Your task to perform on an android device: check android version Image 0: 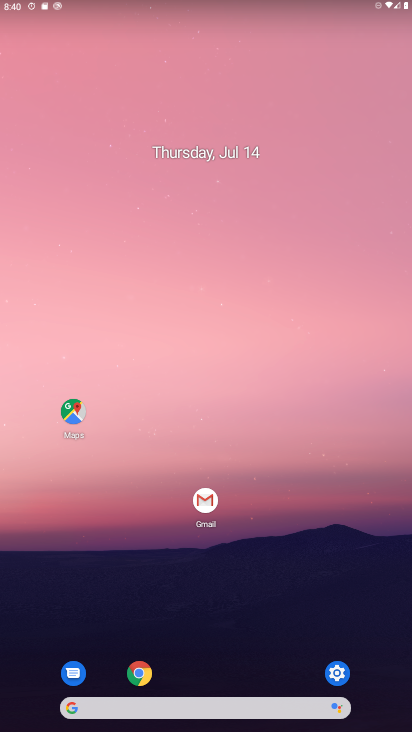
Step 0: drag from (246, 716) to (372, 107)
Your task to perform on an android device: check android version Image 1: 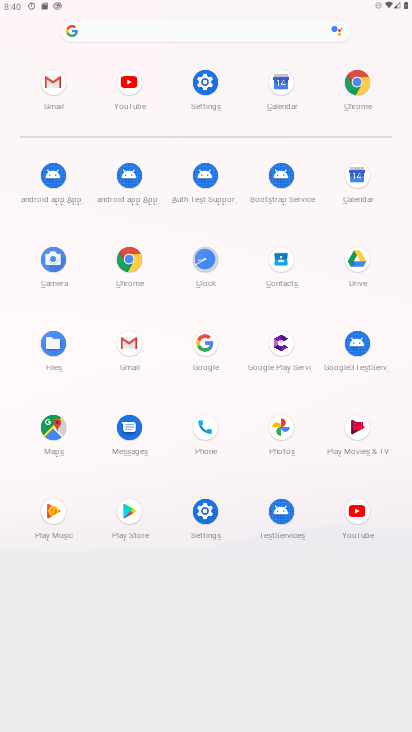
Step 1: click (198, 90)
Your task to perform on an android device: check android version Image 2: 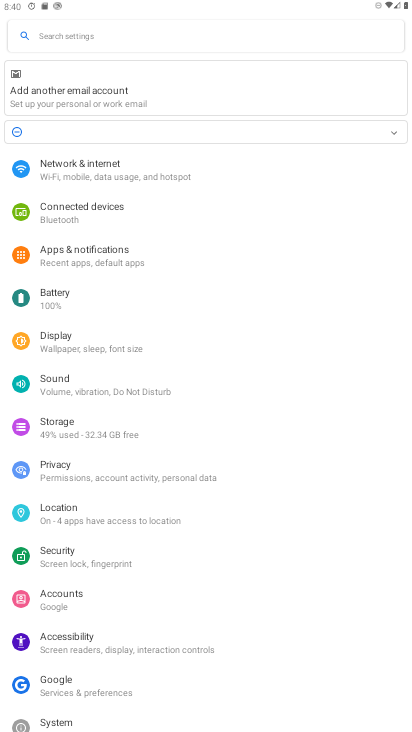
Step 2: click (94, 44)
Your task to perform on an android device: check android version Image 3: 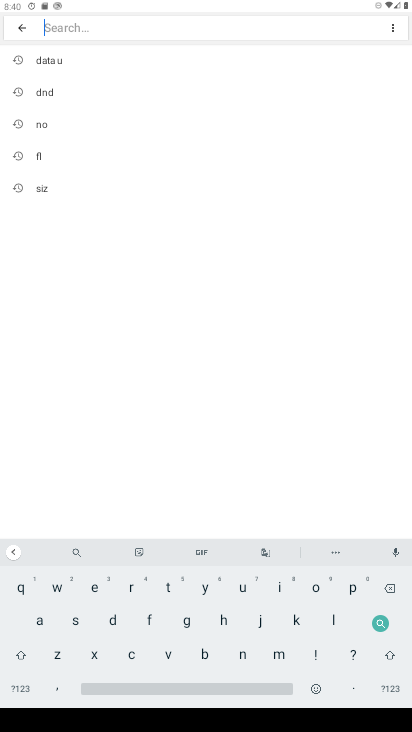
Step 3: click (44, 625)
Your task to perform on an android device: check android version Image 4: 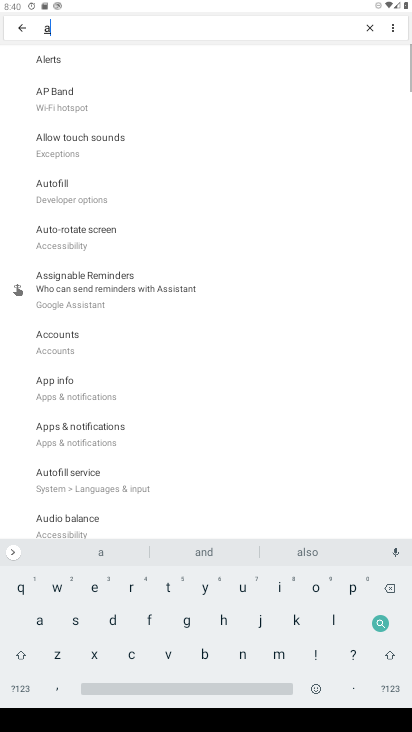
Step 4: click (239, 658)
Your task to perform on an android device: check android version Image 5: 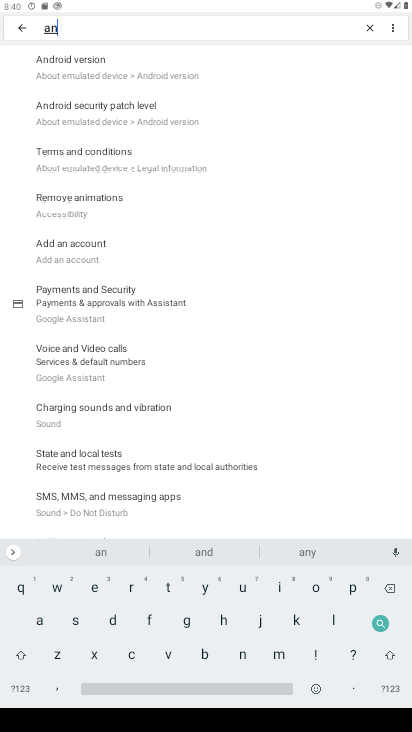
Step 5: click (96, 78)
Your task to perform on an android device: check android version Image 6: 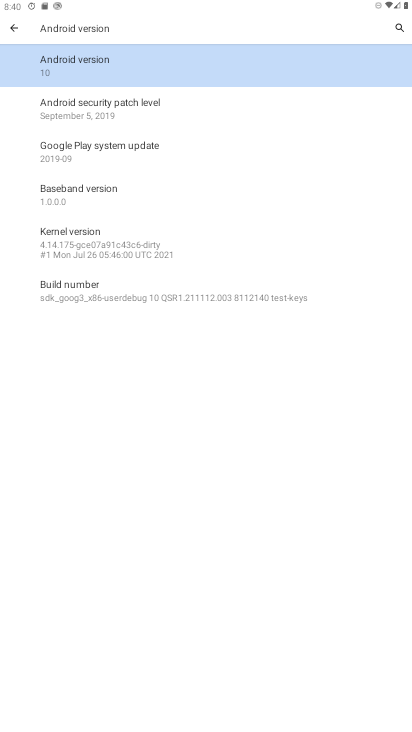
Step 6: click (107, 87)
Your task to perform on an android device: check android version Image 7: 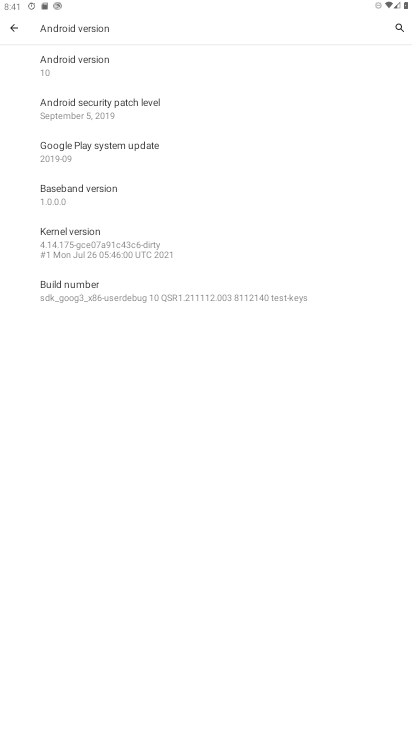
Step 7: task complete